Your task to perform on an android device: Open calendar and show me the fourth week of next month Image 0: 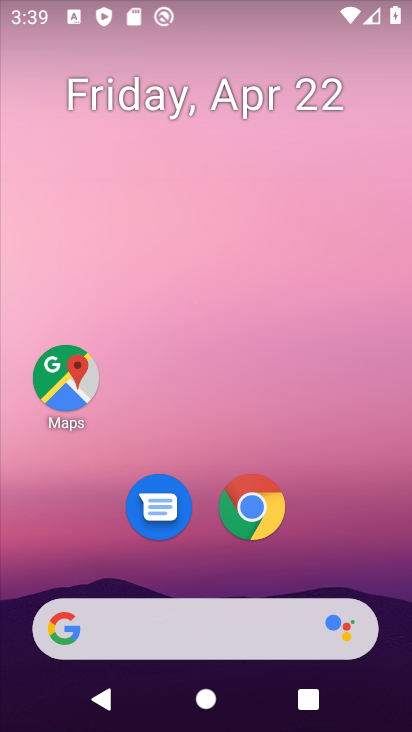
Step 0: drag from (356, 560) to (315, 70)
Your task to perform on an android device: Open calendar and show me the fourth week of next month Image 1: 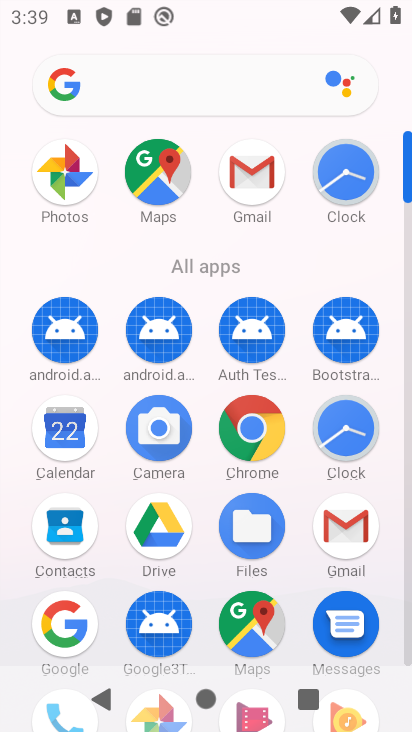
Step 1: click (72, 454)
Your task to perform on an android device: Open calendar and show me the fourth week of next month Image 2: 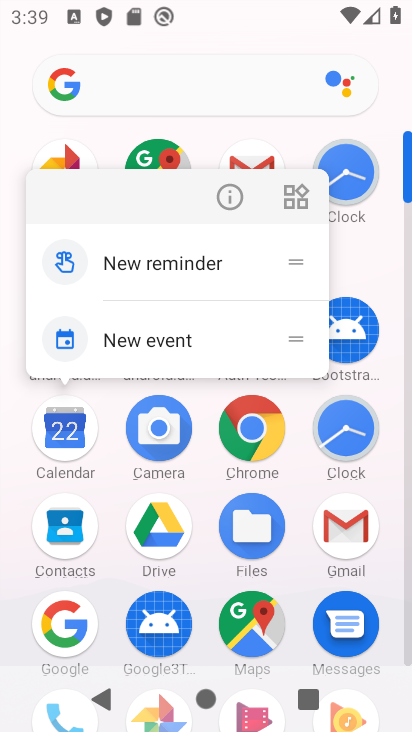
Step 2: click (72, 450)
Your task to perform on an android device: Open calendar and show me the fourth week of next month Image 3: 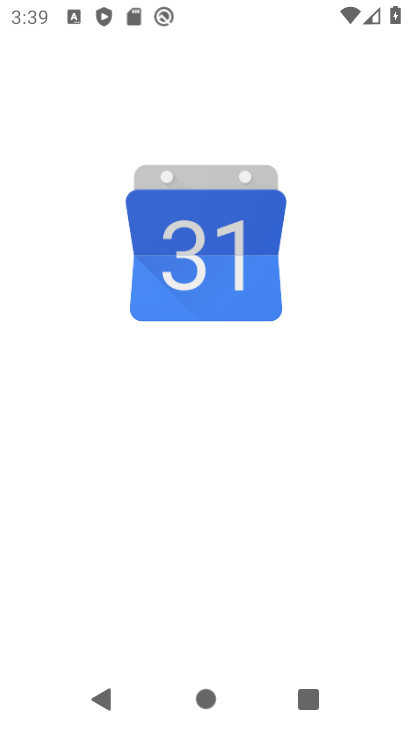
Step 3: click (72, 442)
Your task to perform on an android device: Open calendar and show me the fourth week of next month Image 4: 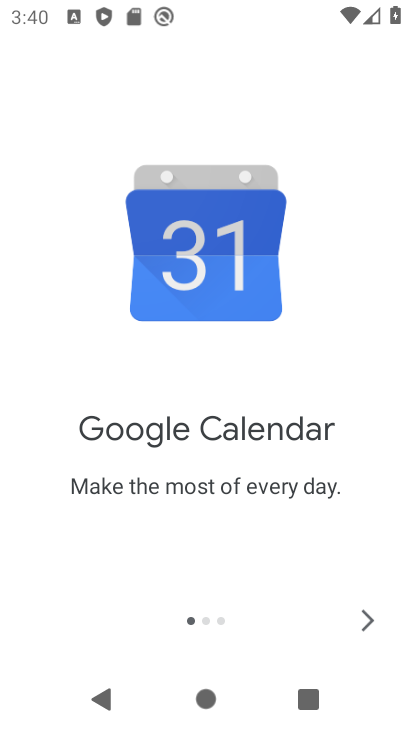
Step 4: click (368, 628)
Your task to perform on an android device: Open calendar and show me the fourth week of next month Image 5: 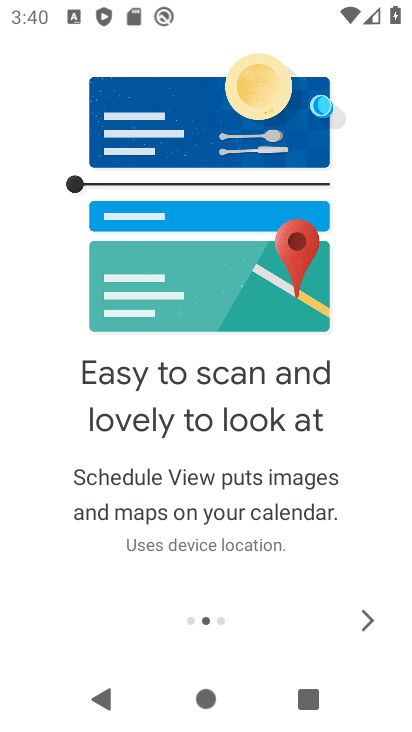
Step 5: click (368, 628)
Your task to perform on an android device: Open calendar and show me the fourth week of next month Image 6: 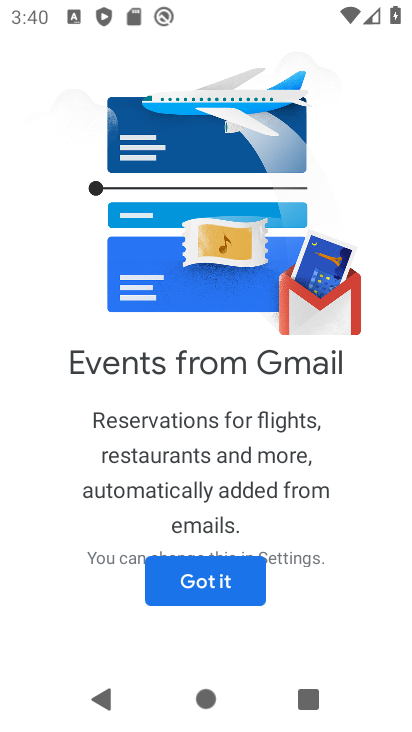
Step 6: click (199, 576)
Your task to perform on an android device: Open calendar and show me the fourth week of next month Image 7: 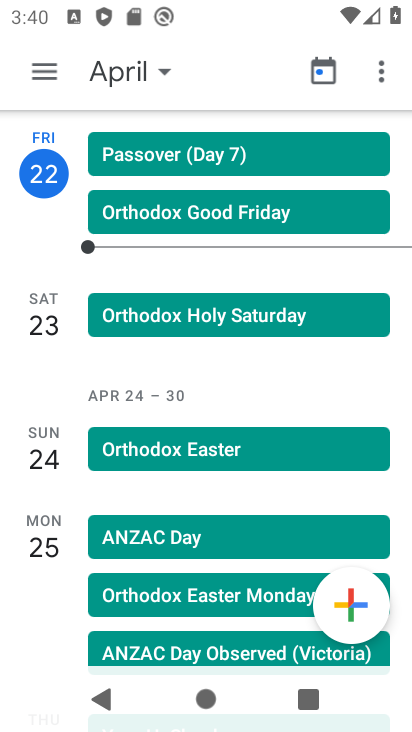
Step 7: click (130, 71)
Your task to perform on an android device: Open calendar and show me the fourth week of next month Image 8: 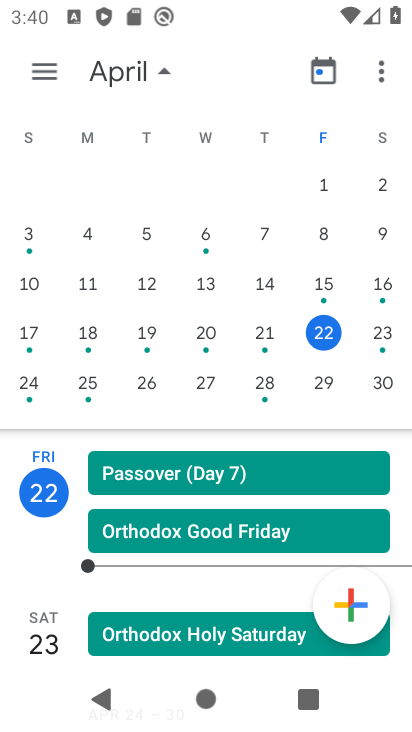
Step 8: drag from (279, 257) to (1, 289)
Your task to perform on an android device: Open calendar and show me the fourth week of next month Image 9: 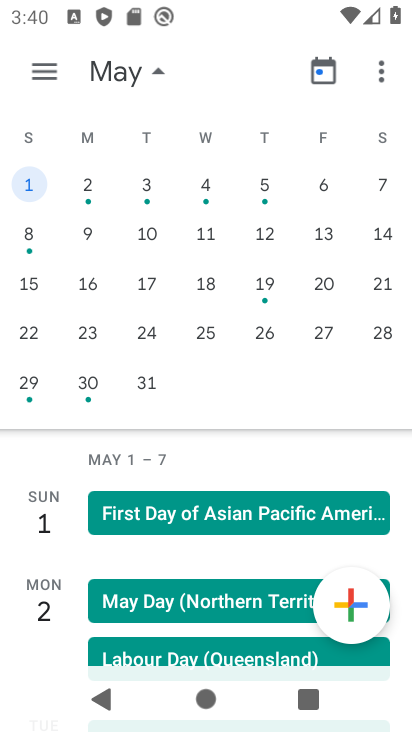
Step 9: click (374, 334)
Your task to perform on an android device: Open calendar and show me the fourth week of next month Image 10: 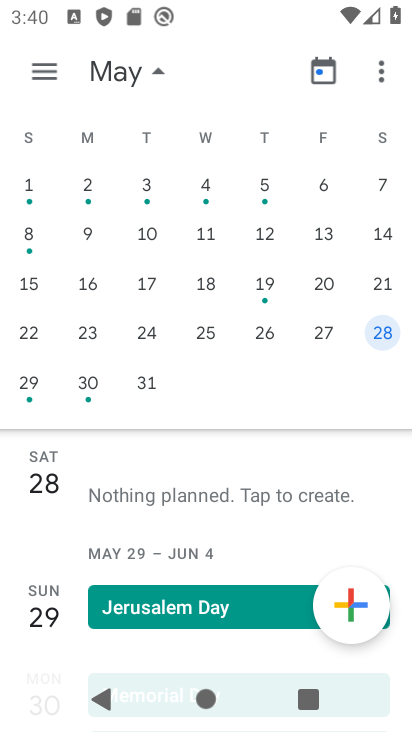
Step 10: task complete